Your task to perform on an android device: Open calendar and show me the fourth week of next month Image 0: 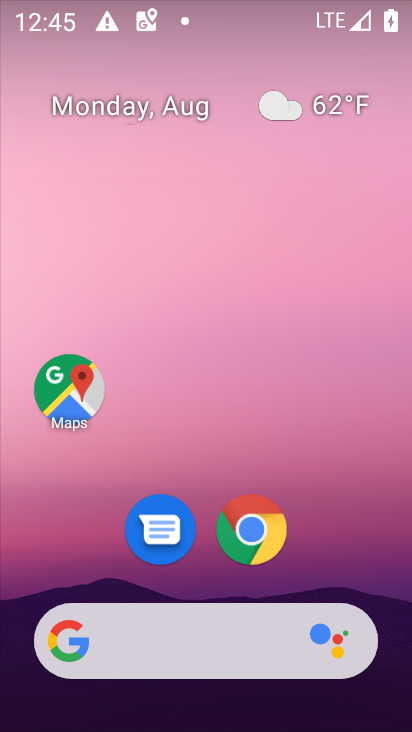
Step 0: drag from (155, 624) to (155, 261)
Your task to perform on an android device: Open calendar and show me the fourth week of next month Image 1: 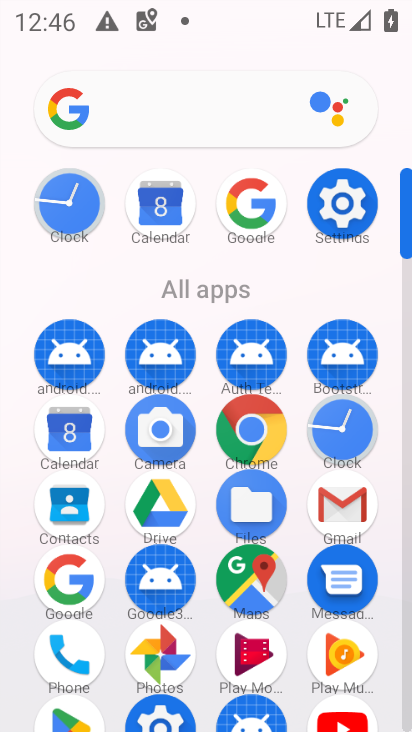
Step 1: click (49, 428)
Your task to perform on an android device: Open calendar and show me the fourth week of next month Image 2: 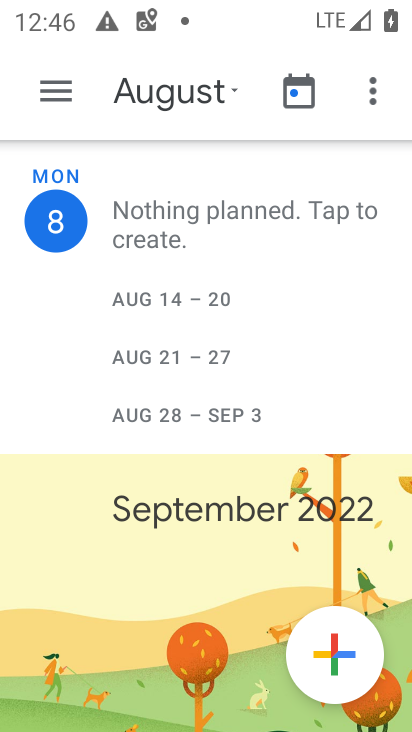
Step 2: click (152, 91)
Your task to perform on an android device: Open calendar and show me the fourth week of next month Image 3: 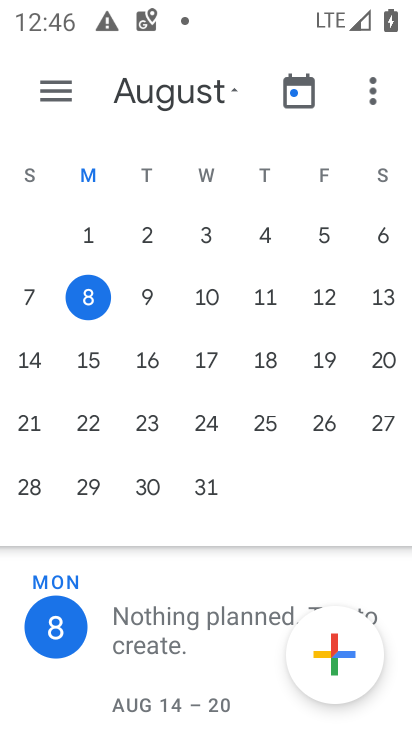
Step 3: drag from (402, 266) to (3, 342)
Your task to perform on an android device: Open calendar and show me the fourth week of next month Image 4: 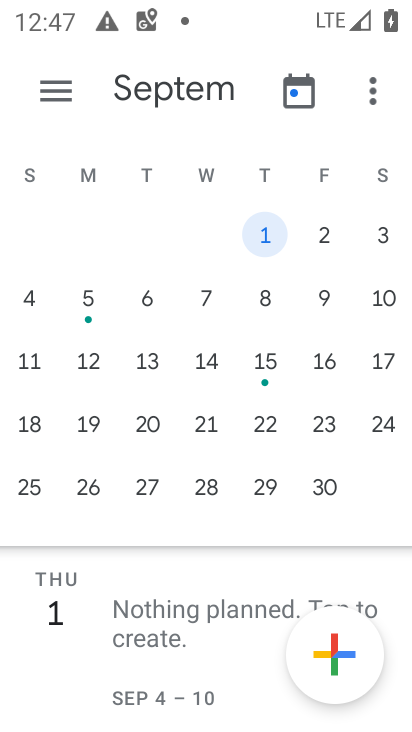
Step 4: click (28, 425)
Your task to perform on an android device: Open calendar and show me the fourth week of next month Image 5: 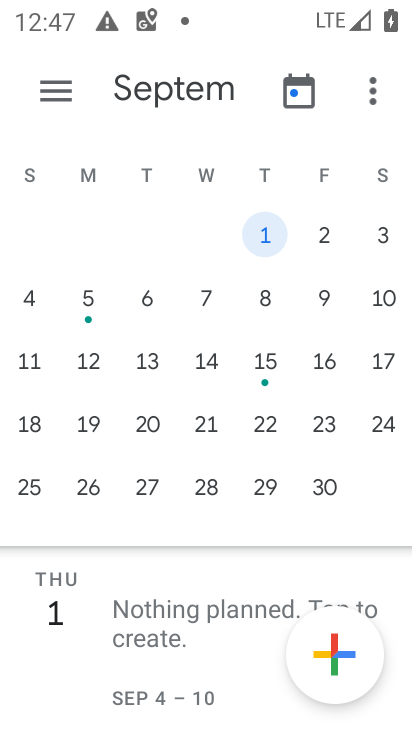
Step 5: click (31, 425)
Your task to perform on an android device: Open calendar and show me the fourth week of next month Image 6: 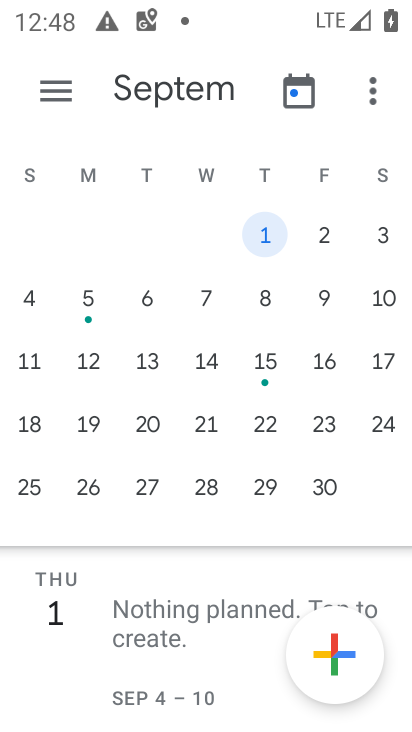
Step 6: click (31, 419)
Your task to perform on an android device: Open calendar and show me the fourth week of next month Image 7: 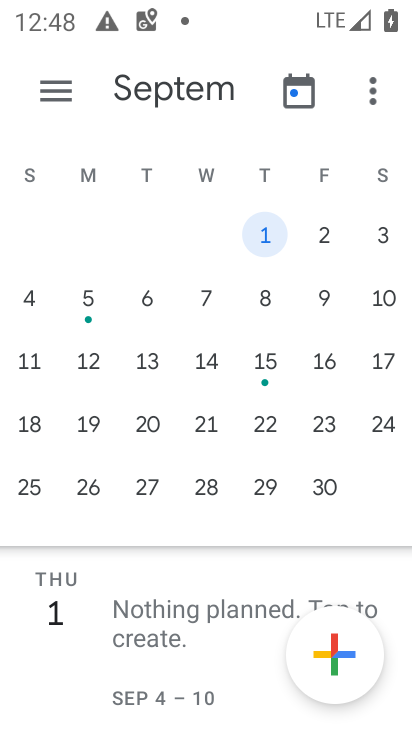
Step 7: click (39, 421)
Your task to perform on an android device: Open calendar and show me the fourth week of next month Image 8: 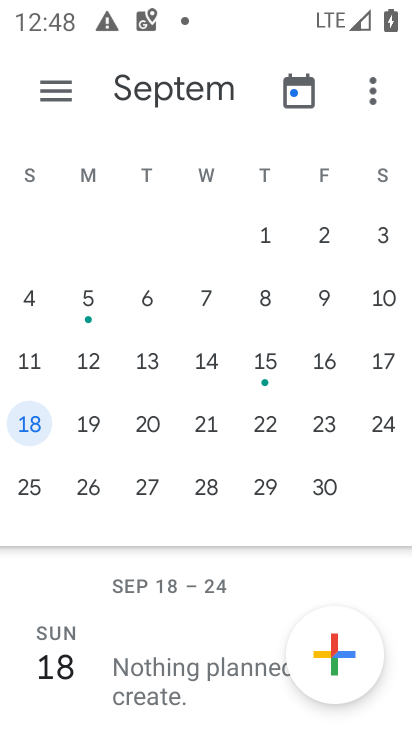
Step 8: task complete